Your task to perform on an android device: check google app version Image 0: 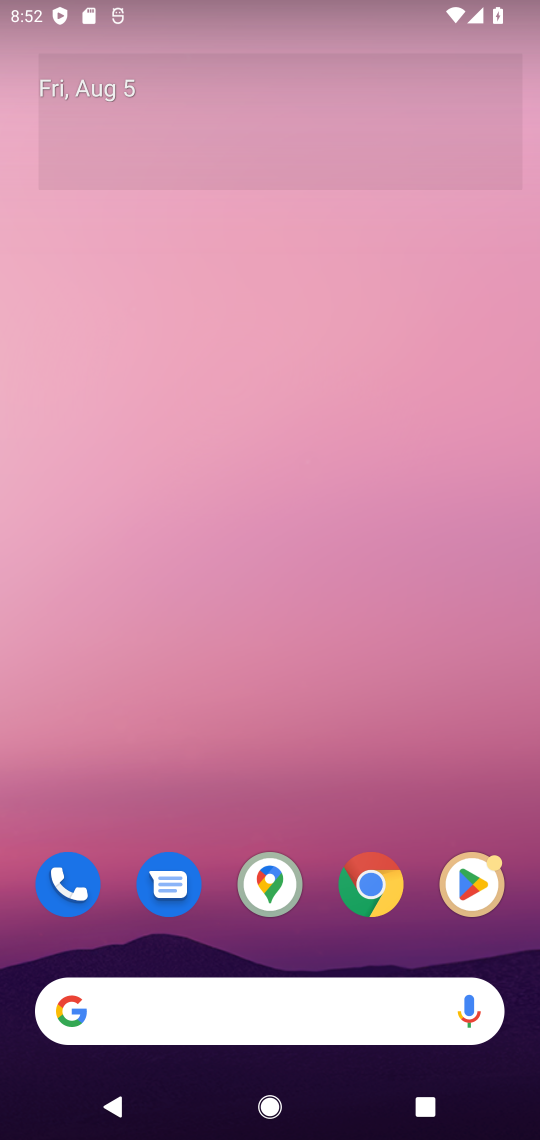
Step 0: click (343, 1016)
Your task to perform on an android device: check google app version Image 1: 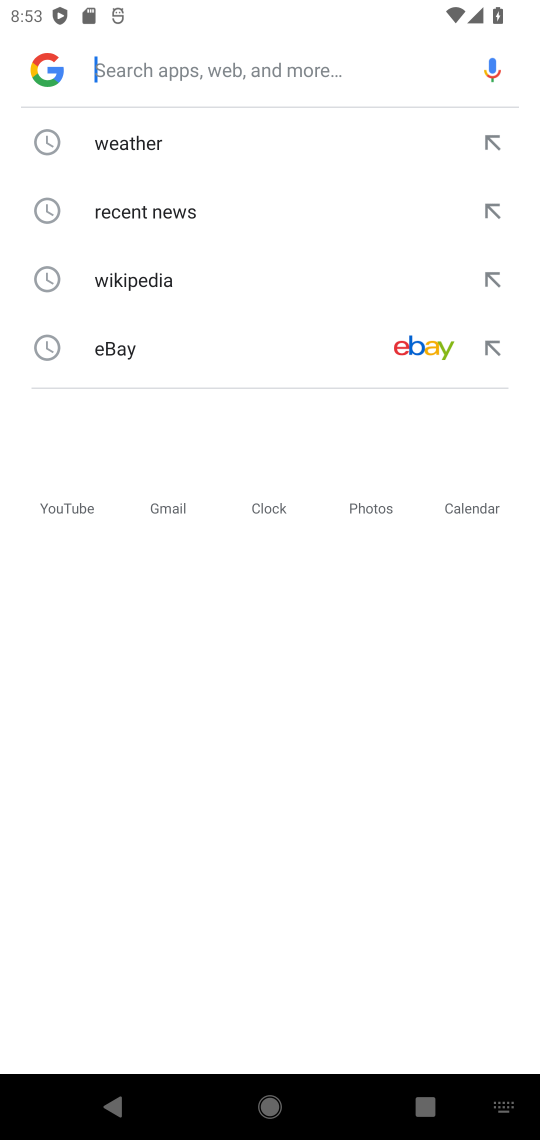
Step 1: click (44, 78)
Your task to perform on an android device: check google app version Image 2: 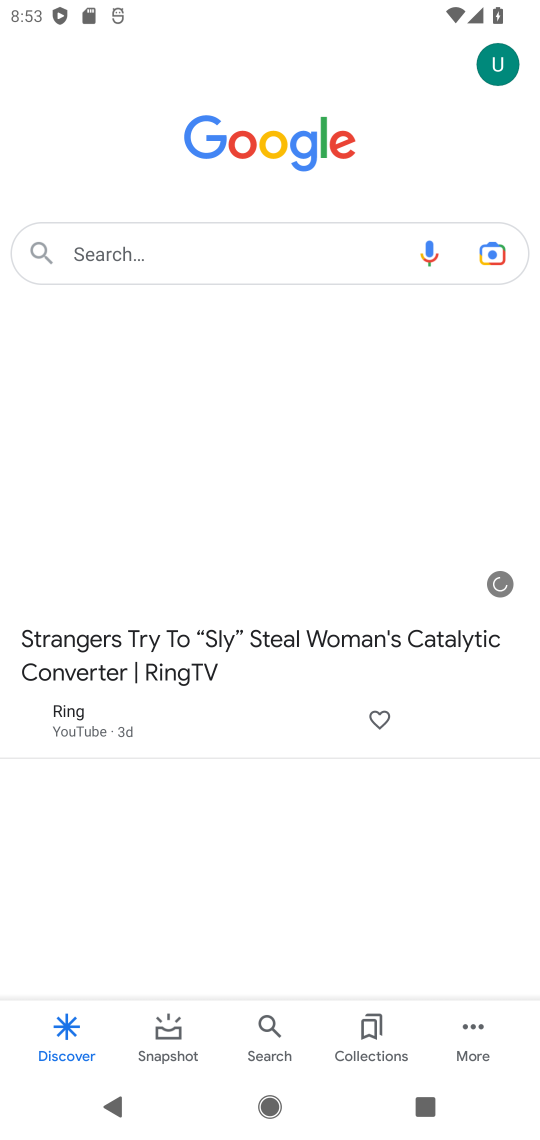
Step 2: click (500, 54)
Your task to perform on an android device: check google app version Image 3: 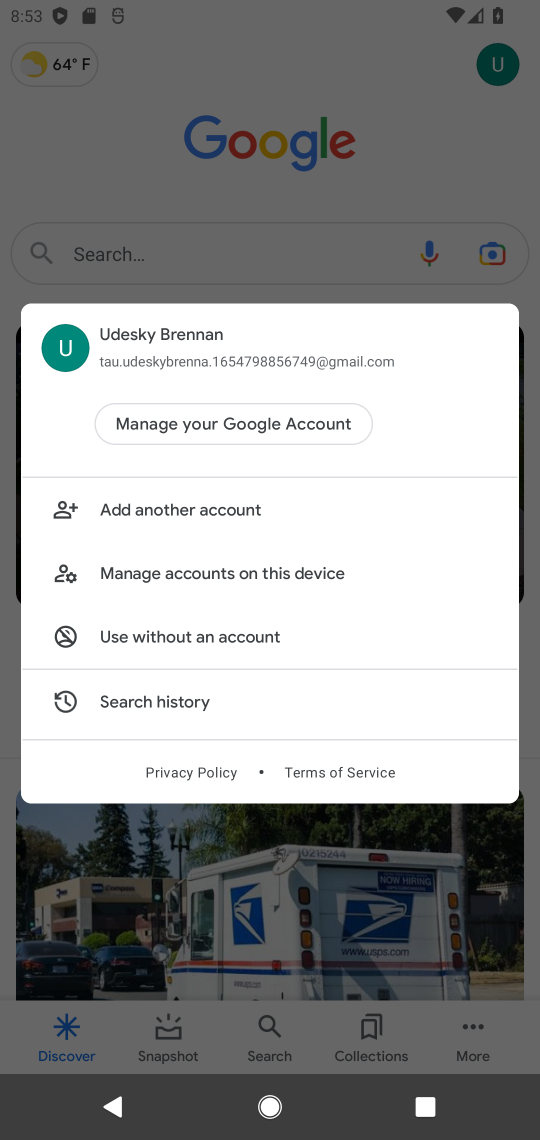
Step 3: task complete